Your task to perform on an android device: Search for dell xps on bestbuy, select the first entry, add it to the cart, then select checkout. Image 0: 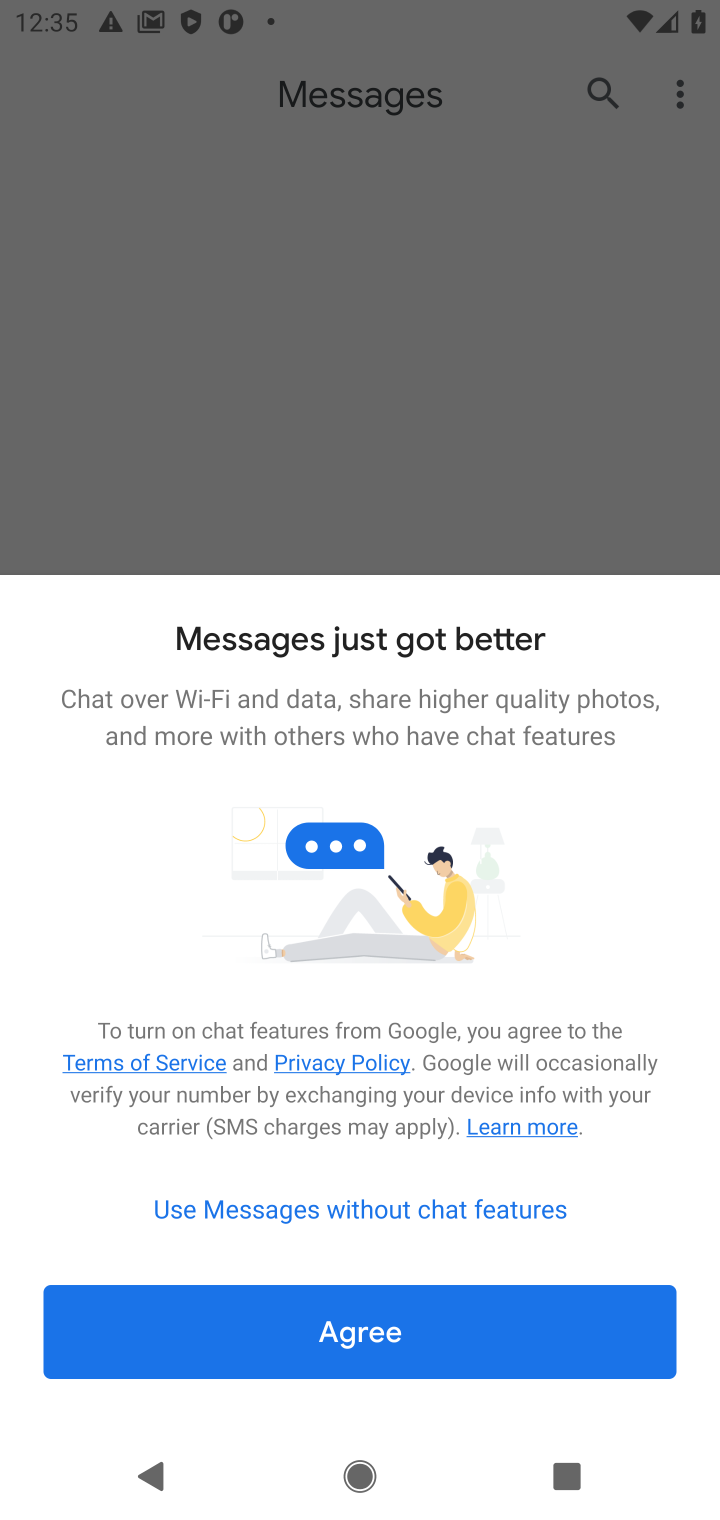
Step 0: click (471, 1345)
Your task to perform on an android device: Search for dell xps on bestbuy, select the first entry, add it to the cart, then select checkout. Image 1: 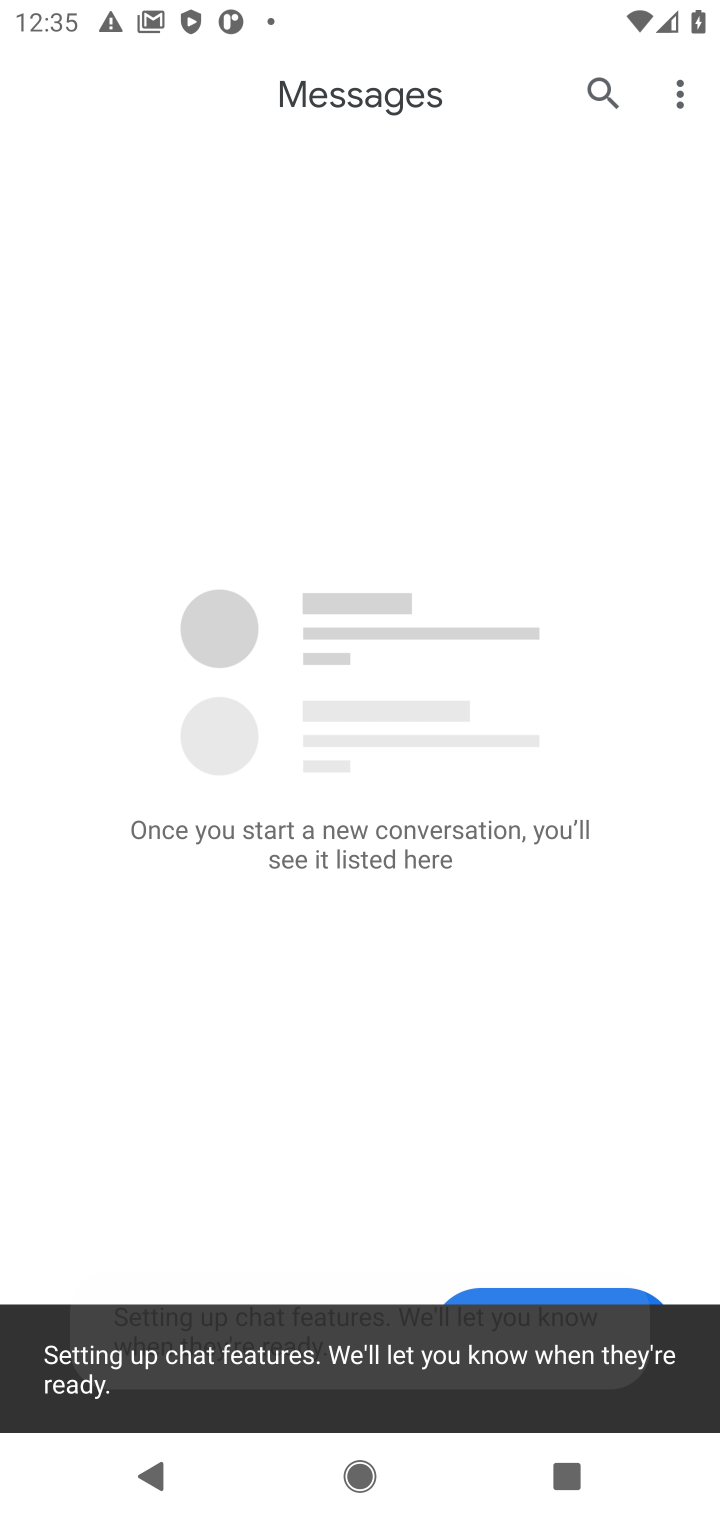
Step 1: press home button
Your task to perform on an android device: Search for dell xps on bestbuy, select the first entry, add it to the cart, then select checkout. Image 2: 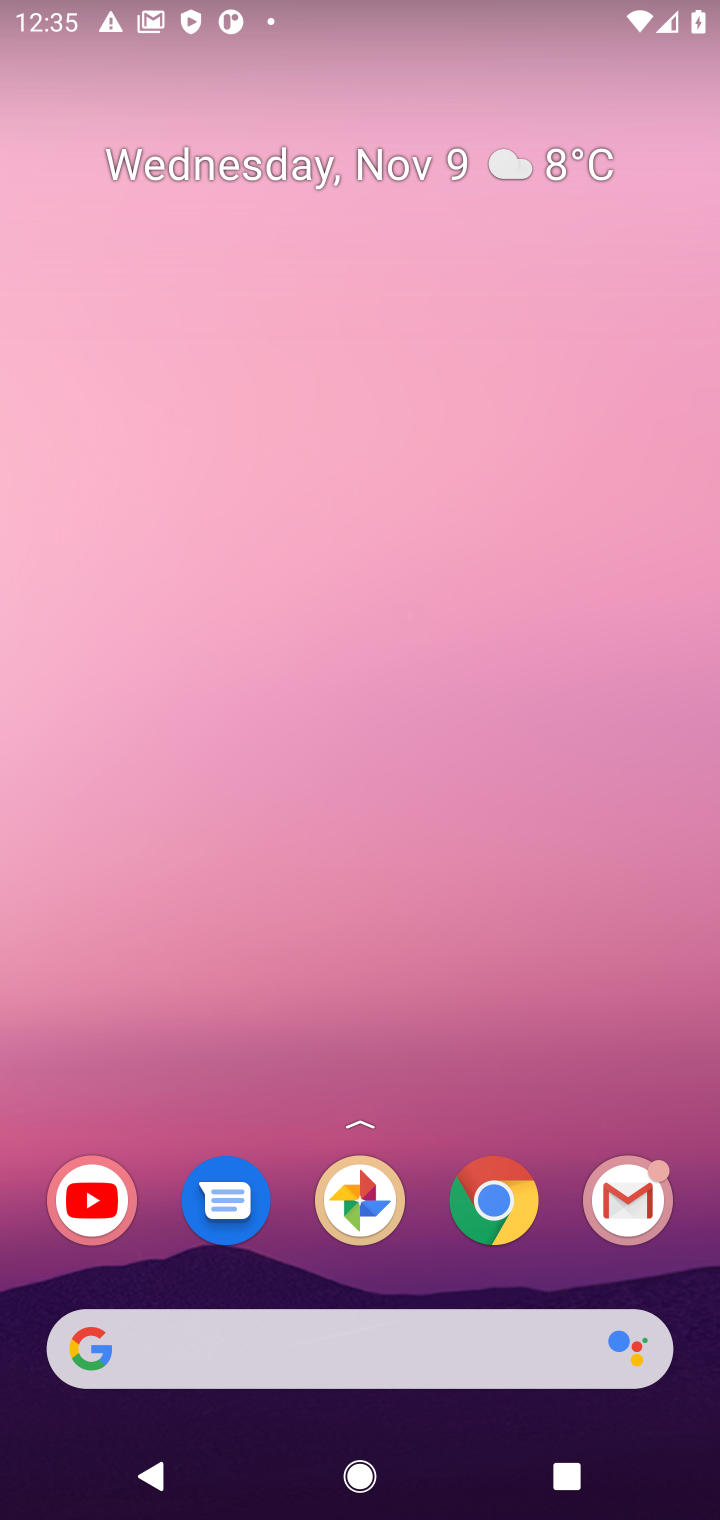
Step 2: click (258, 1352)
Your task to perform on an android device: Search for dell xps on bestbuy, select the first entry, add it to the cart, then select checkout. Image 3: 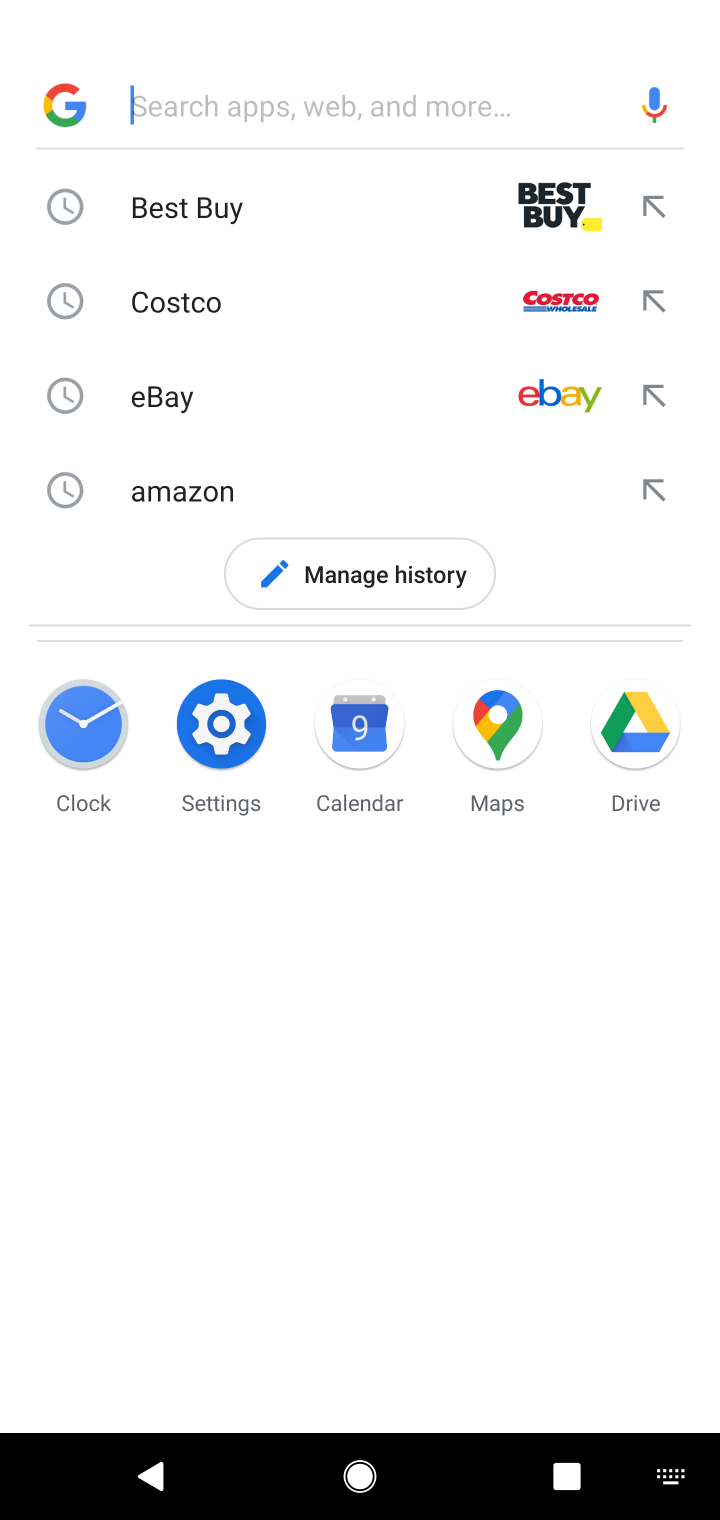
Step 3: click (363, 199)
Your task to perform on an android device: Search for dell xps on bestbuy, select the first entry, add it to the cart, then select checkout. Image 4: 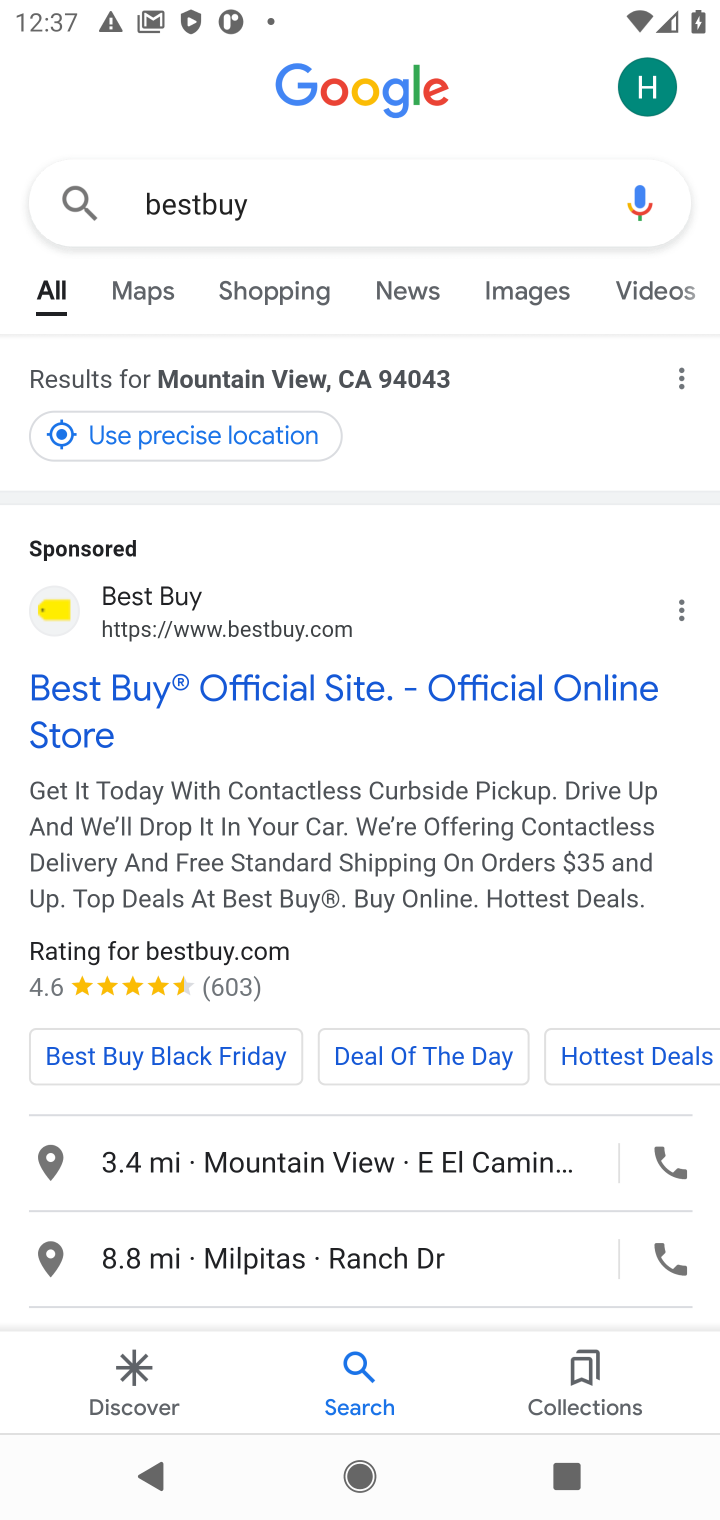
Step 4: click (72, 690)
Your task to perform on an android device: Search for dell xps on bestbuy, select the first entry, add it to the cart, then select checkout. Image 5: 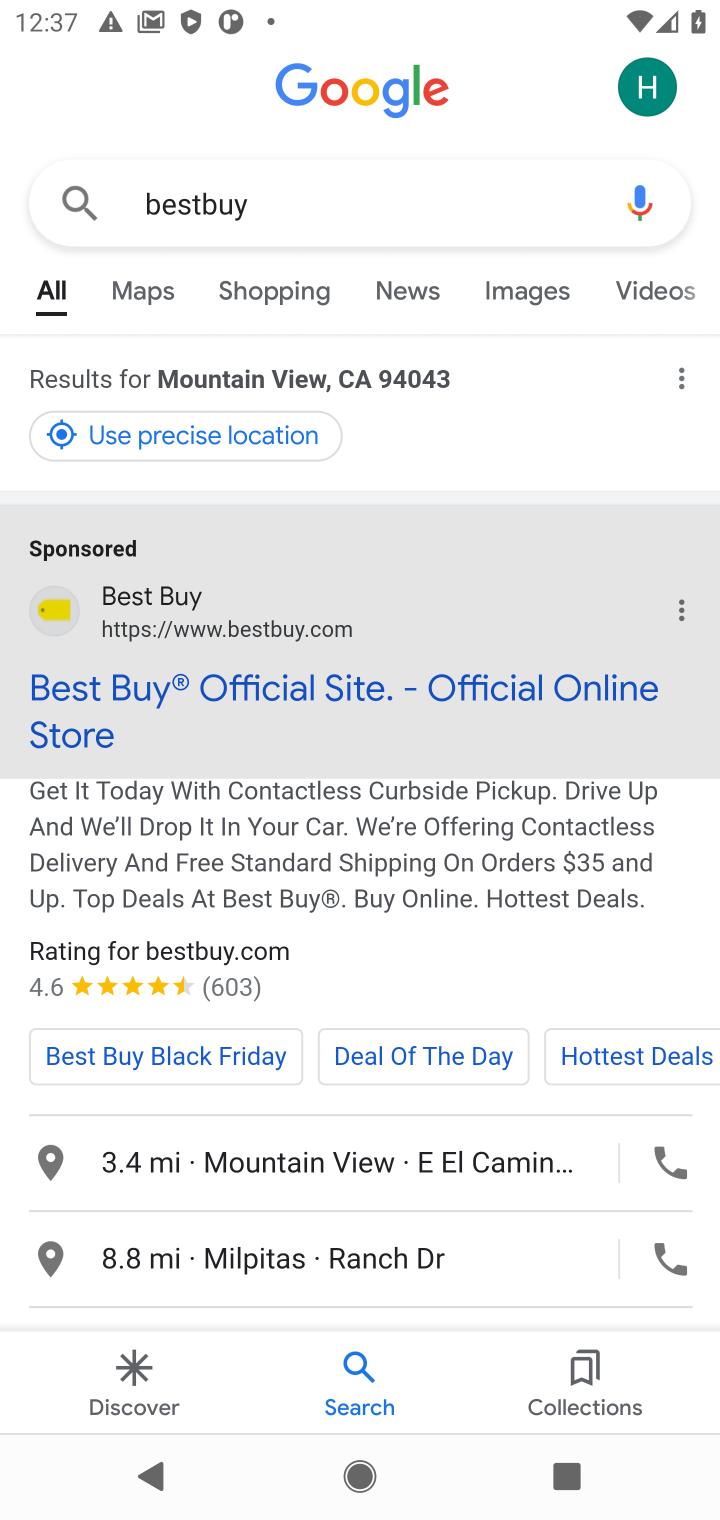
Step 5: task complete